Your task to perform on an android device: Go to internet settings Image 0: 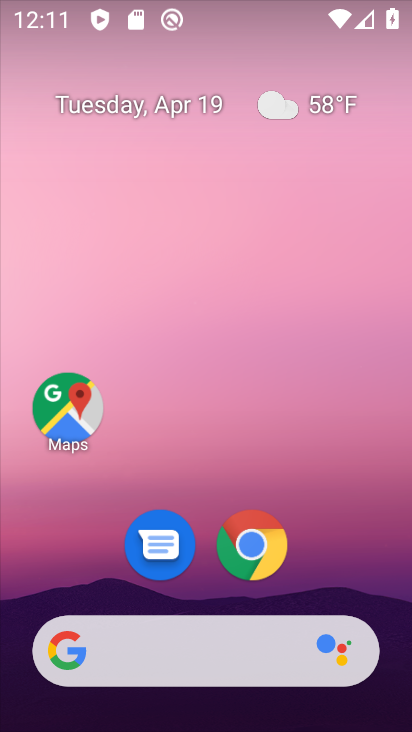
Step 0: drag from (204, 584) to (273, 0)
Your task to perform on an android device: Go to internet settings Image 1: 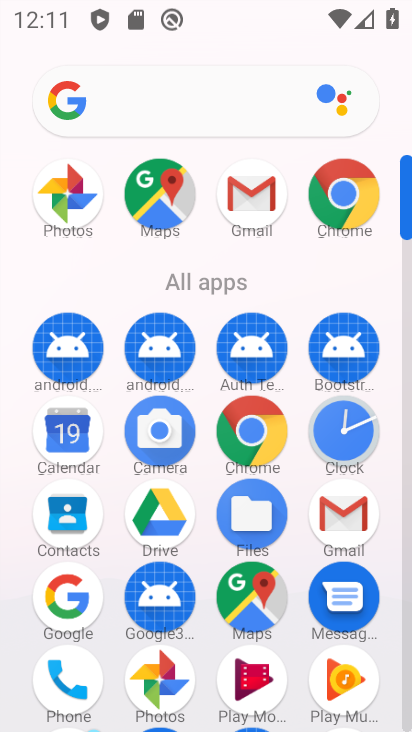
Step 1: drag from (214, 557) to (291, 7)
Your task to perform on an android device: Go to internet settings Image 2: 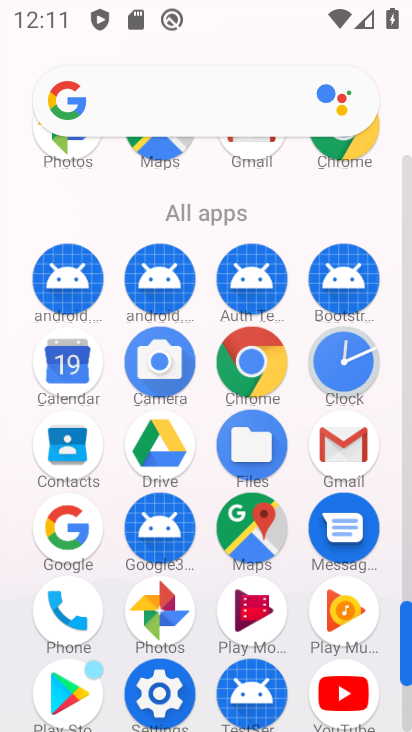
Step 2: click (156, 671)
Your task to perform on an android device: Go to internet settings Image 3: 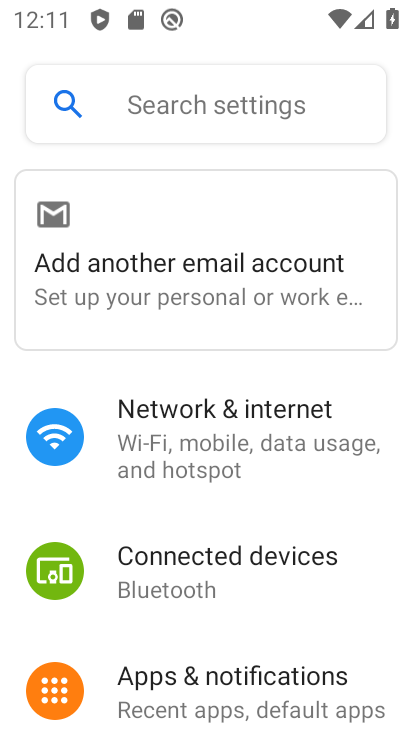
Step 3: click (229, 431)
Your task to perform on an android device: Go to internet settings Image 4: 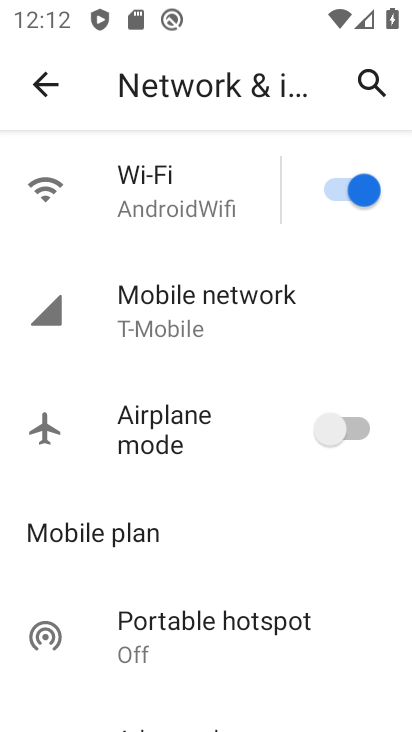
Step 4: task complete